Your task to perform on an android device: toggle translation in the chrome app Image 0: 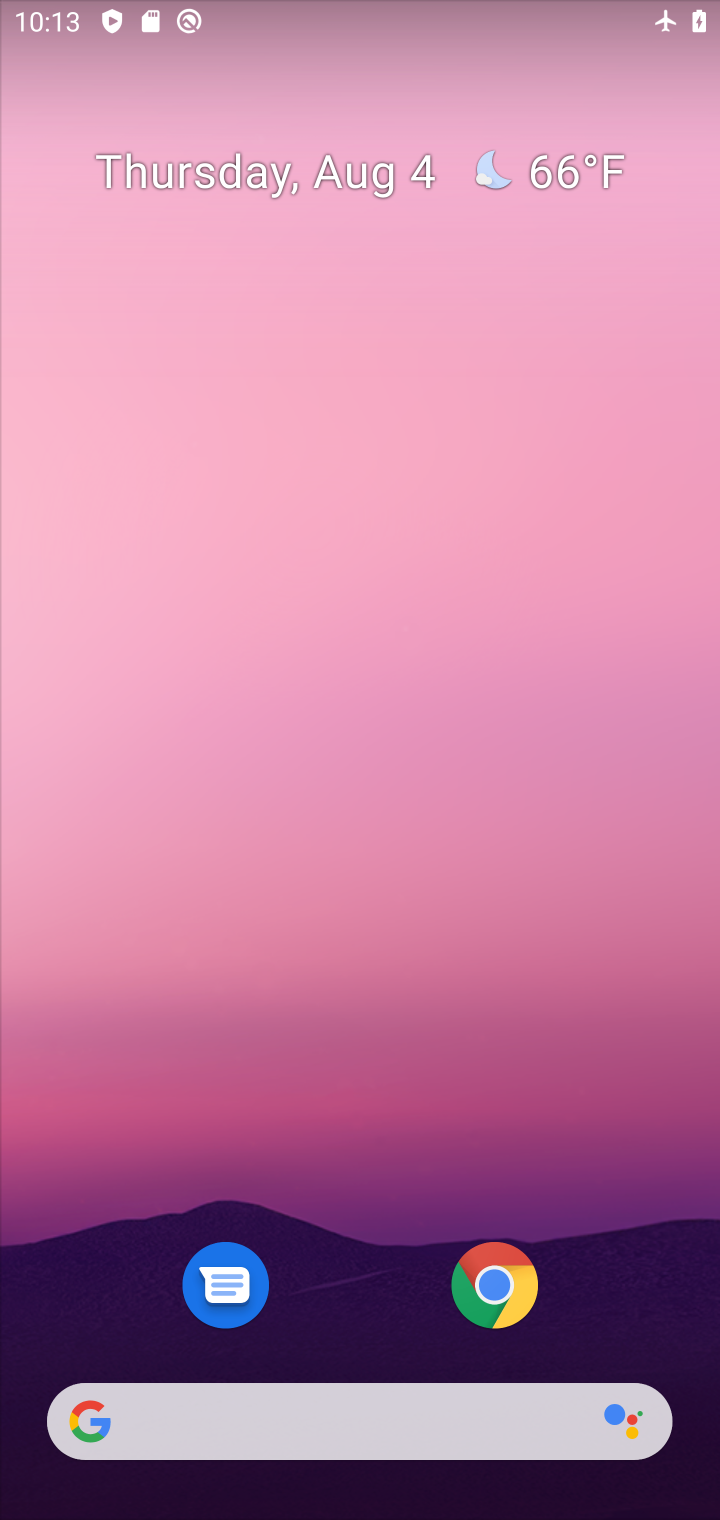
Step 0: press home button
Your task to perform on an android device: toggle translation in the chrome app Image 1: 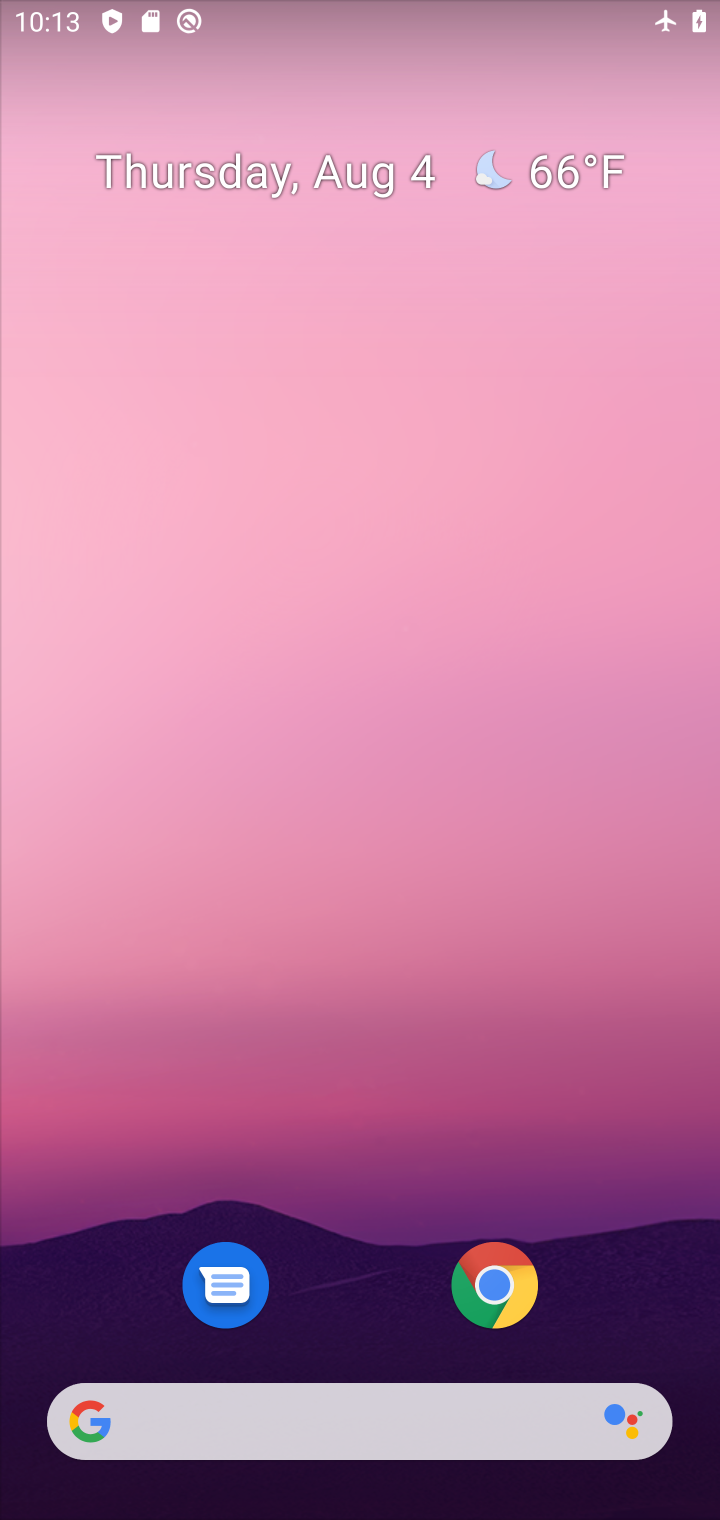
Step 1: drag from (388, 1268) to (471, 56)
Your task to perform on an android device: toggle translation in the chrome app Image 2: 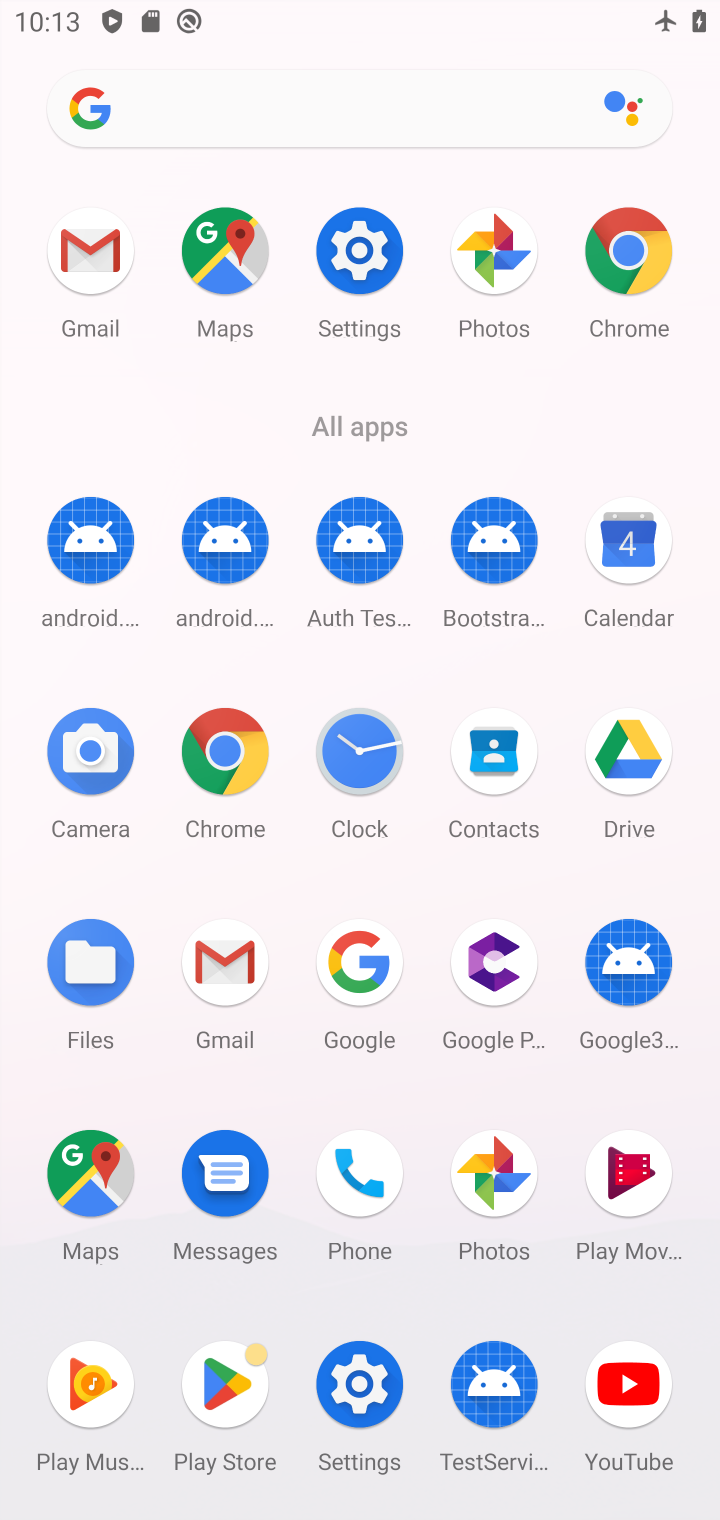
Step 2: click (644, 248)
Your task to perform on an android device: toggle translation in the chrome app Image 3: 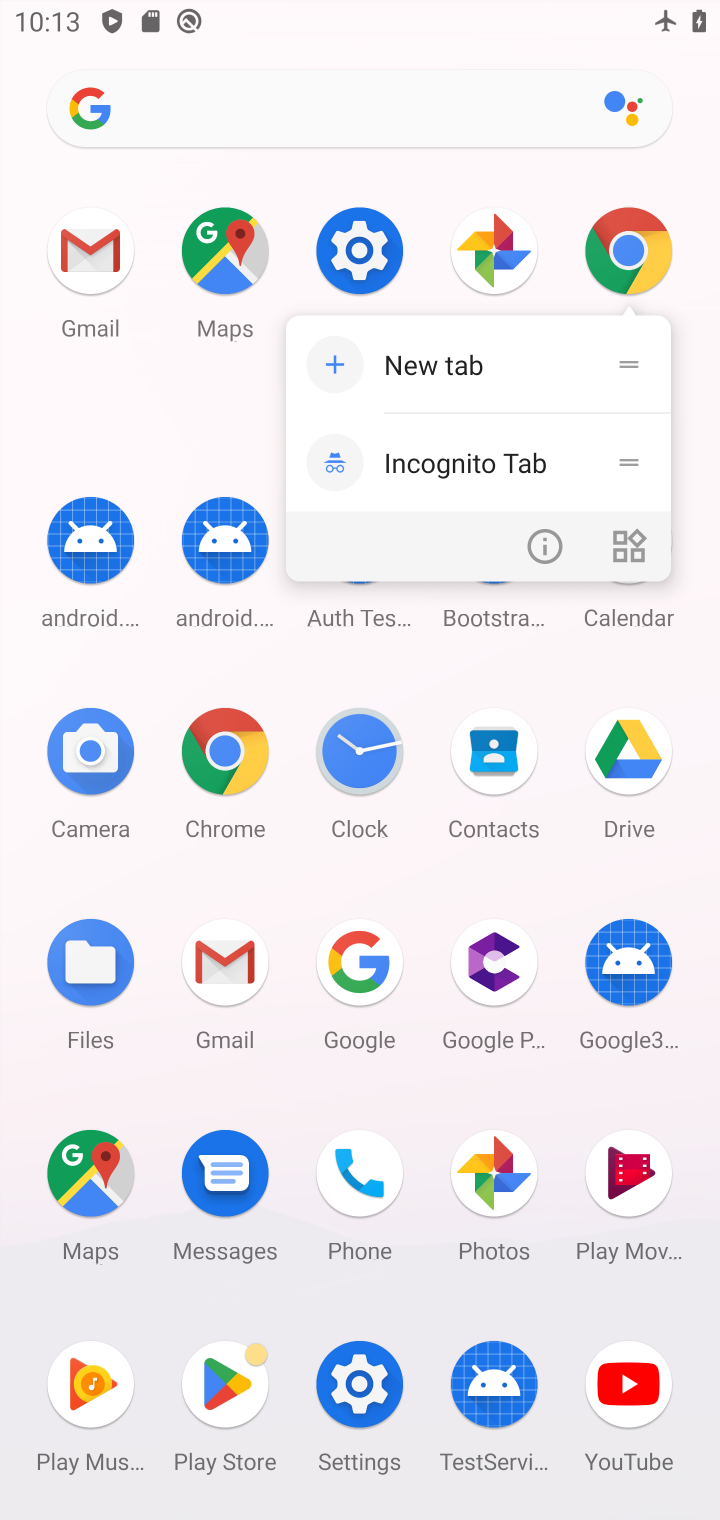
Step 3: click (644, 248)
Your task to perform on an android device: toggle translation in the chrome app Image 4: 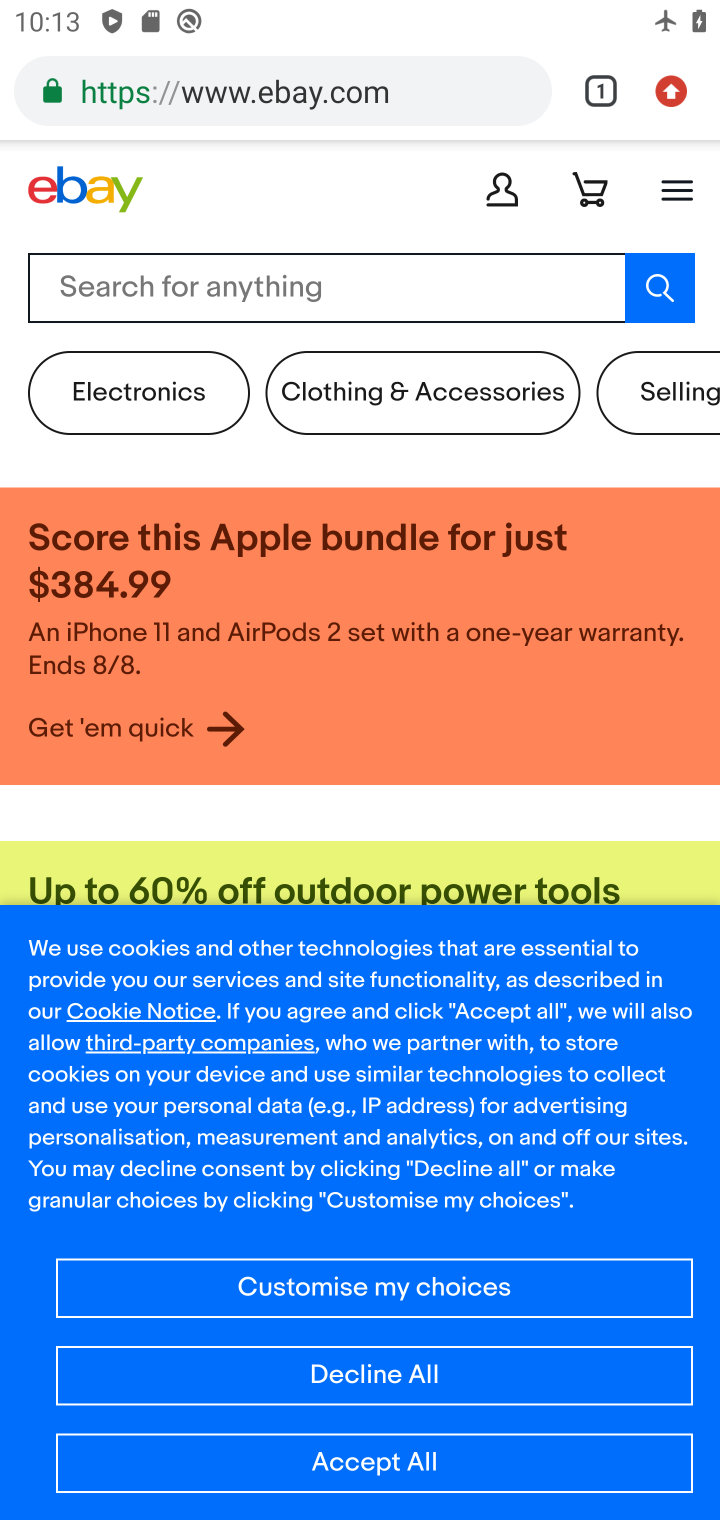
Step 4: click (674, 91)
Your task to perform on an android device: toggle translation in the chrome app Image 5: 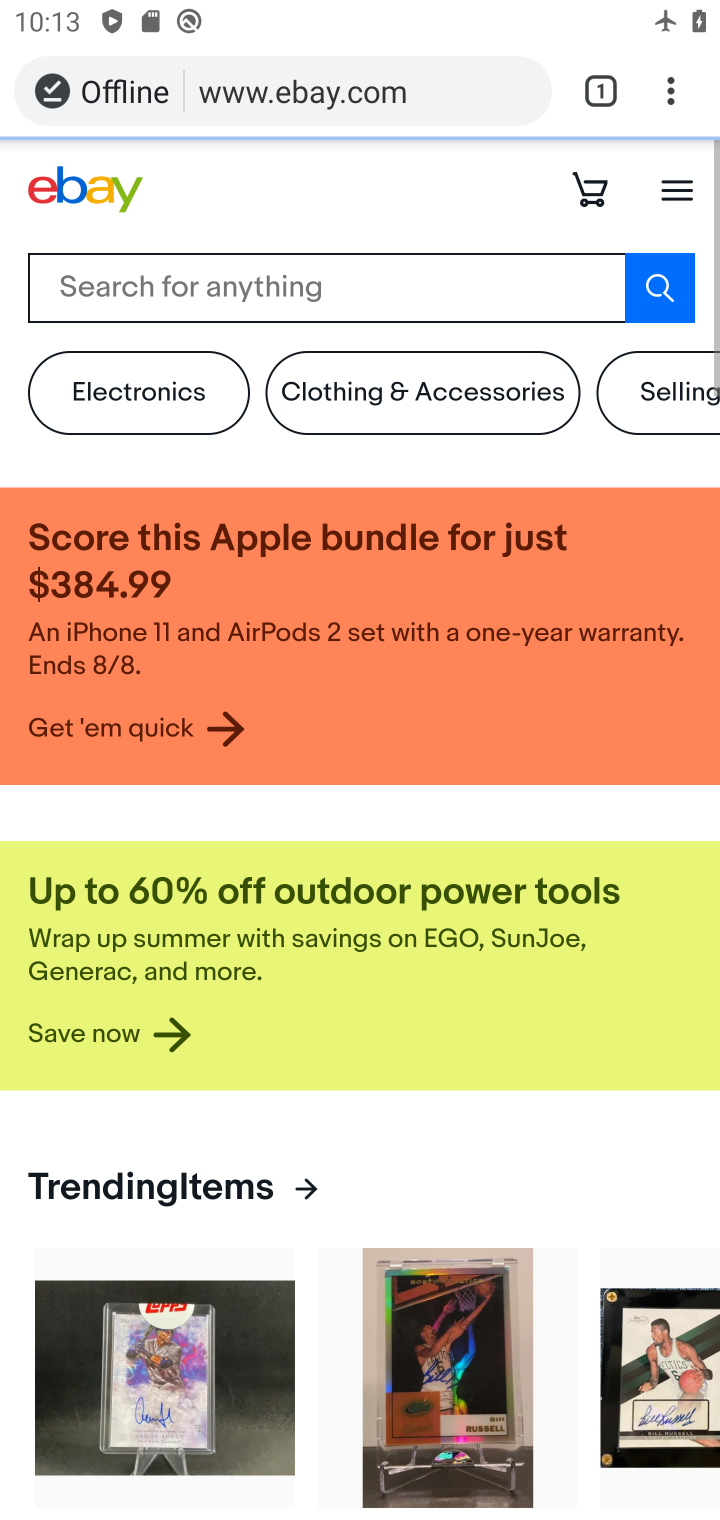
Step 5: drag from (676, 81) to (364, 1132)
Your task to perform on an android device: toggle translation in the chrome app Image 6: 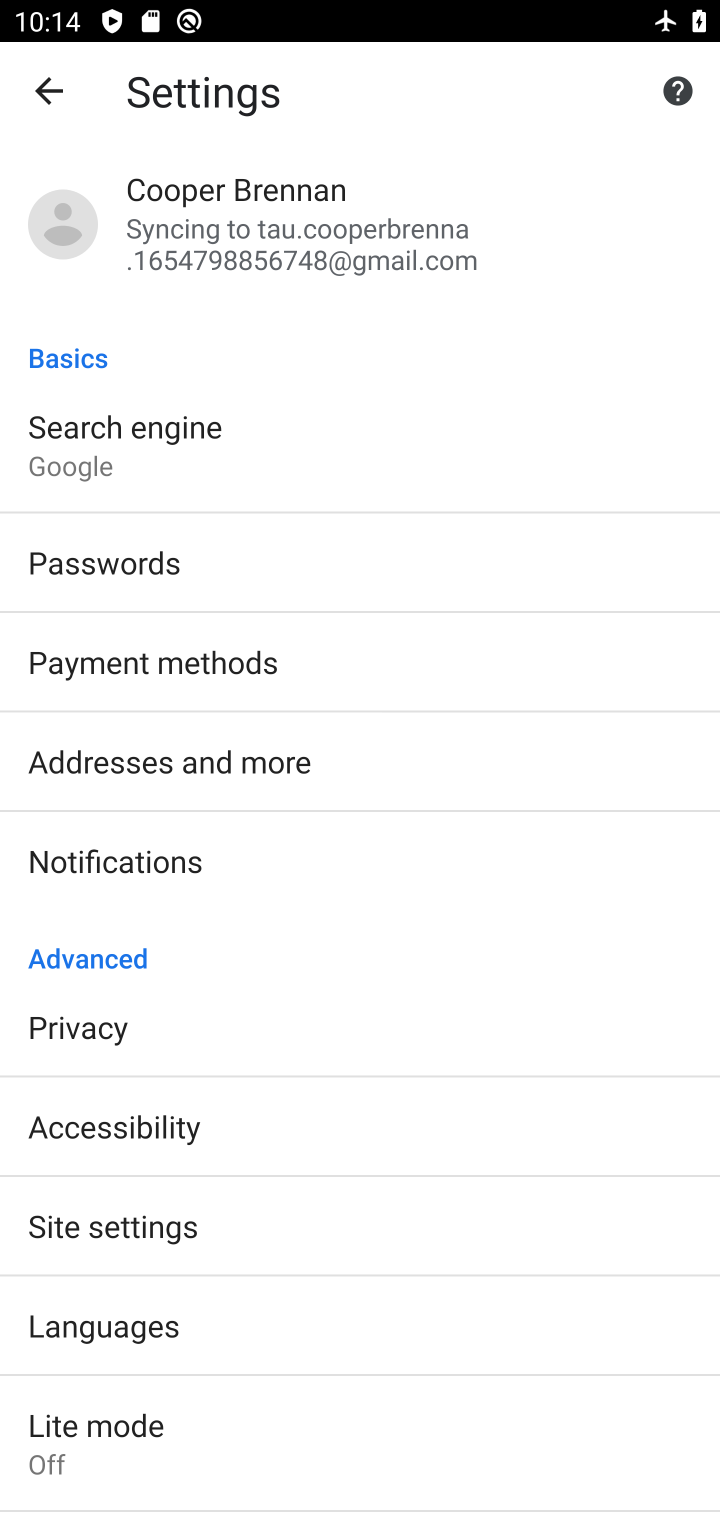
Step 6: drag from (371, 1311) to (377, 863)
Your task to perform on an android device: toggle translation in the chrome app Image 7: 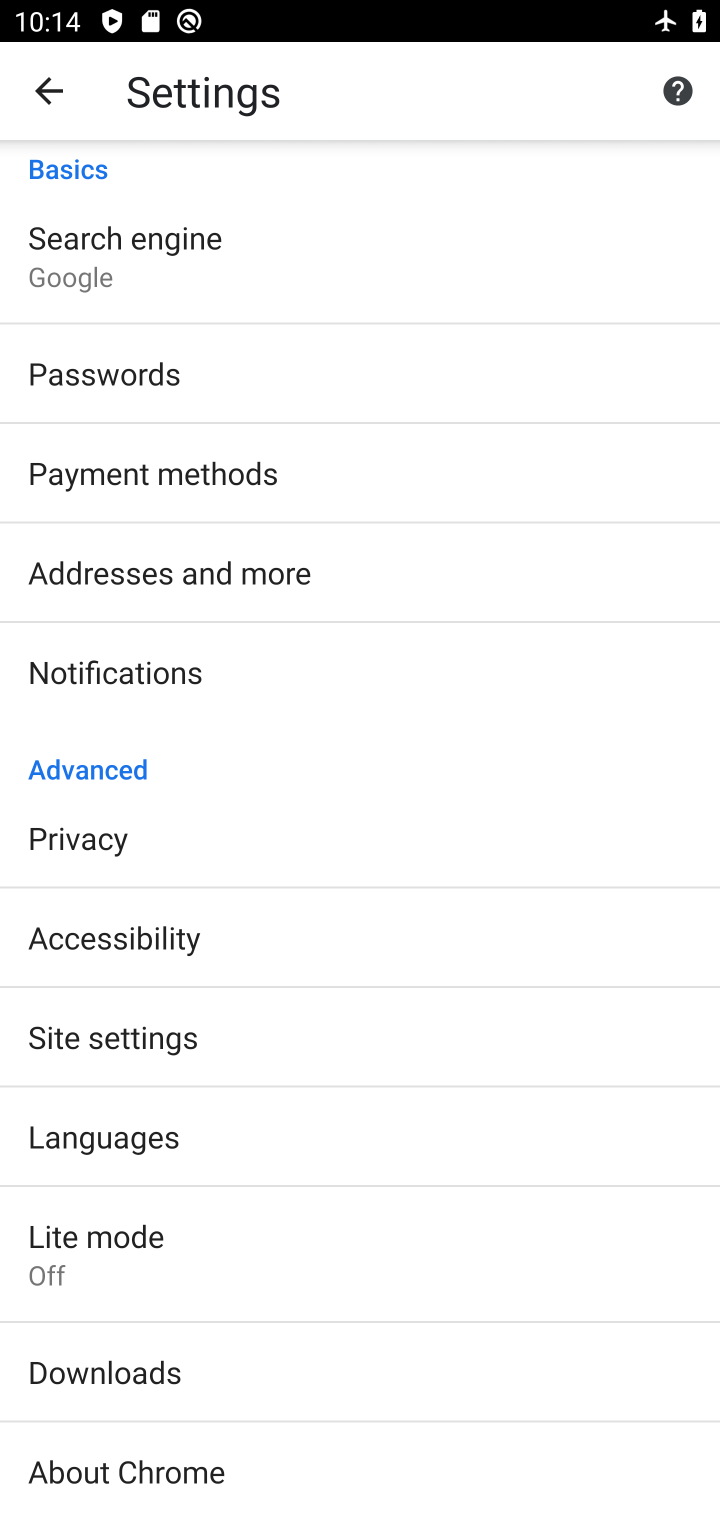
Step 7: click (173, 1128)
Your task to perform on an android device: toggle translation in the chrome app Image 8: 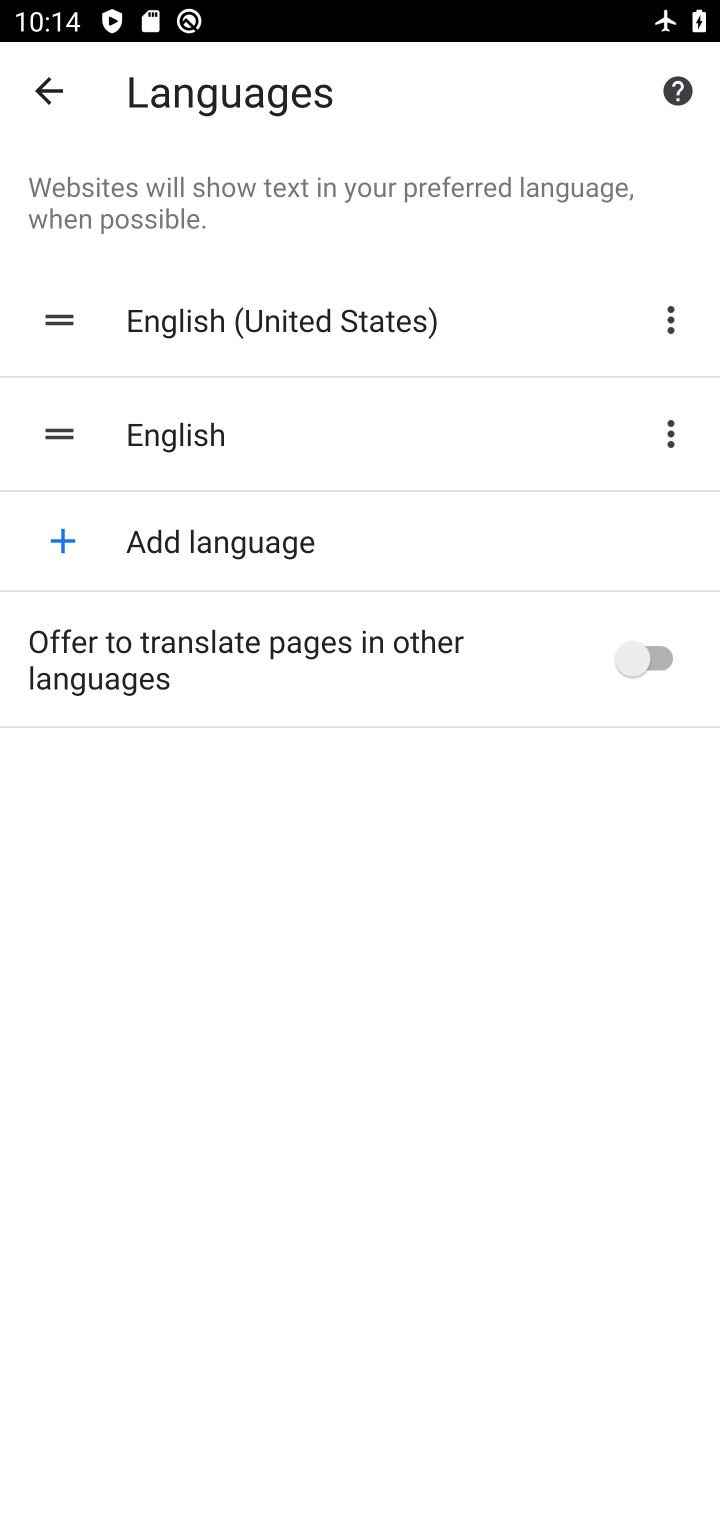
Step 8: click (424, 643)
Your task to perform on an android device: toggle translation in the chrome app Image 9: 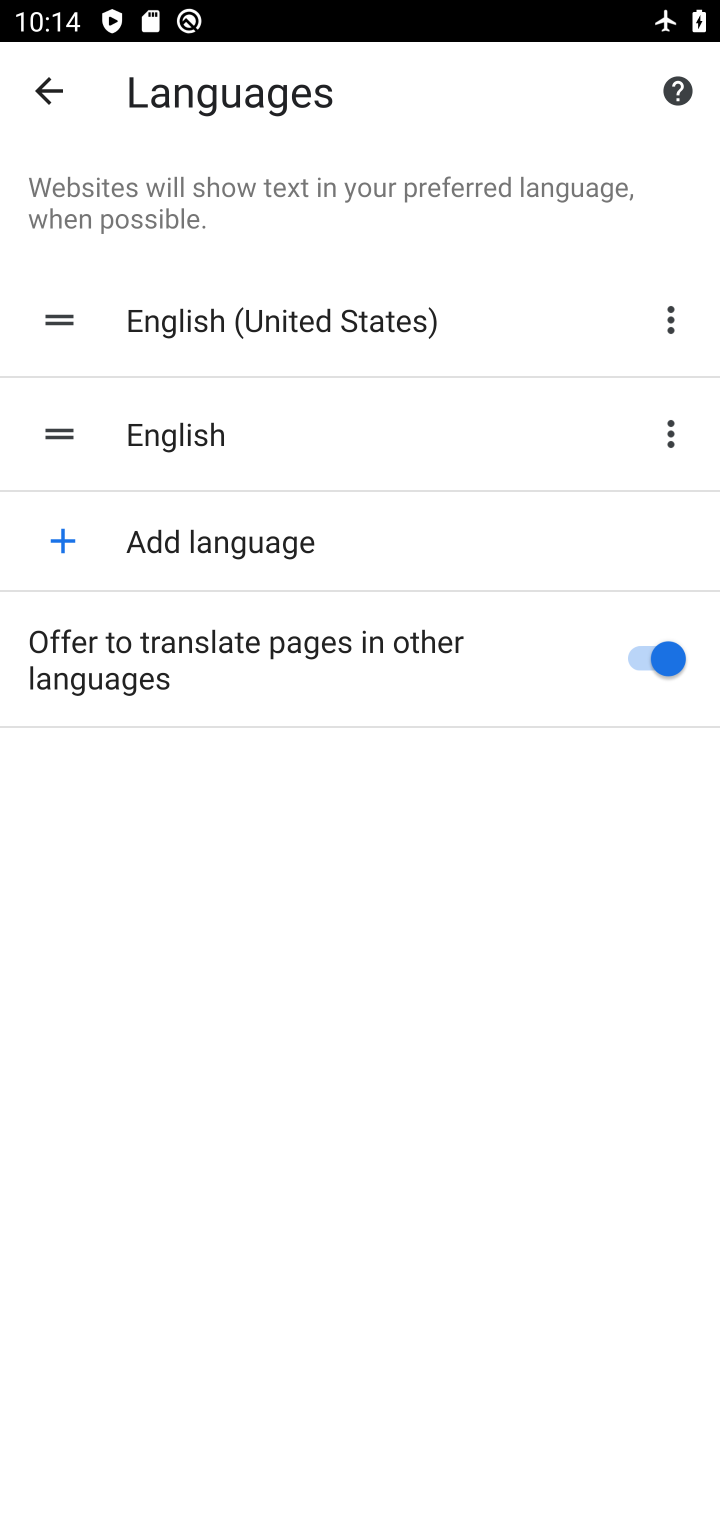
Step 9: task complete